Your task to perform on an android device: change the clock display to digital Image 0: 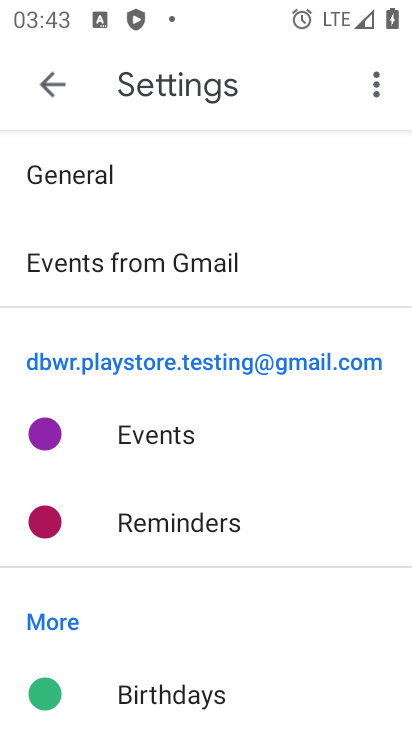
Step 0: press home button
Your task to perform on an android device: change the clock display to digital Image 1: 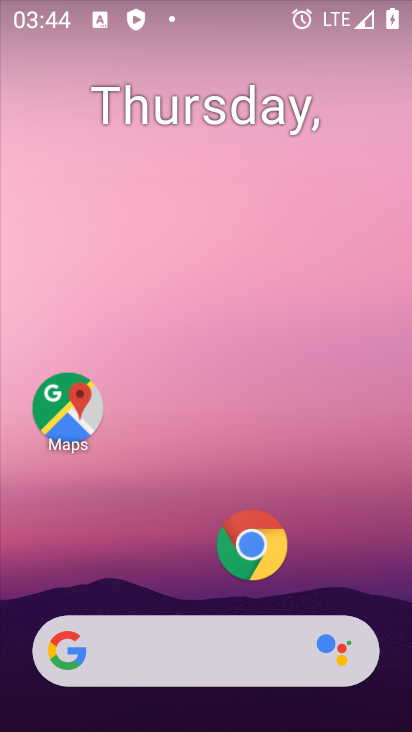
Step 1: drag from (299, 538) to (348, 6)
Your task to perform on an android device: change the clock display to digital Image 2: 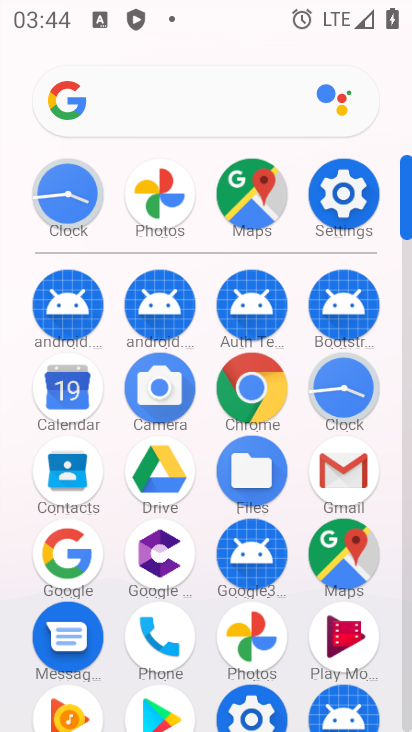
Step 2: click (336, 392)
Your task to perform on an android device: change the clock display to digital Image 3: 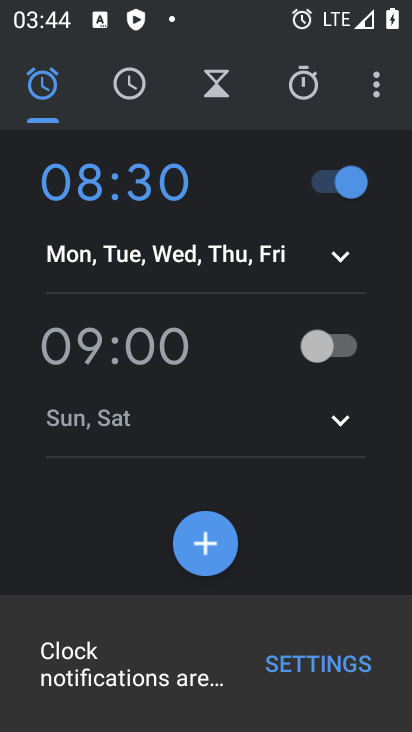
Step 3: click (377, 77)
Your task to perform on an android device: change the clock display to digital Image 4: 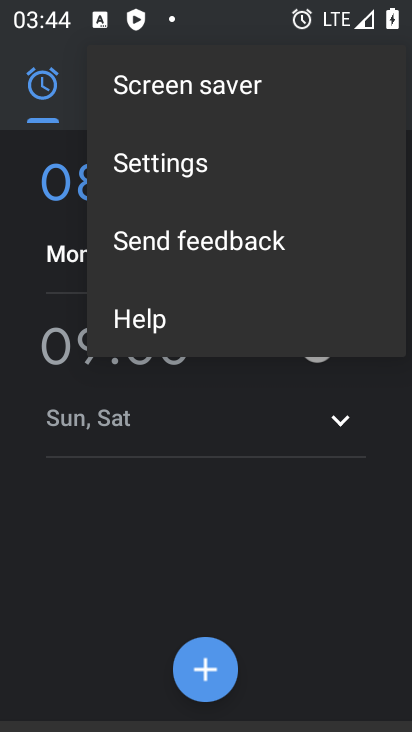
Step 4: click (223, 173)
Your task to perform on an android device: change the clock display to digital Image 5: 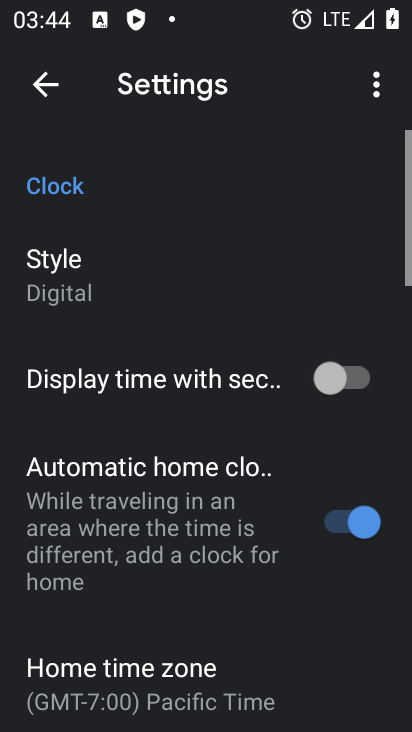
Step 5: click (192, 294)
Your task to perform on an android device: change the clock display to digital Image 6: 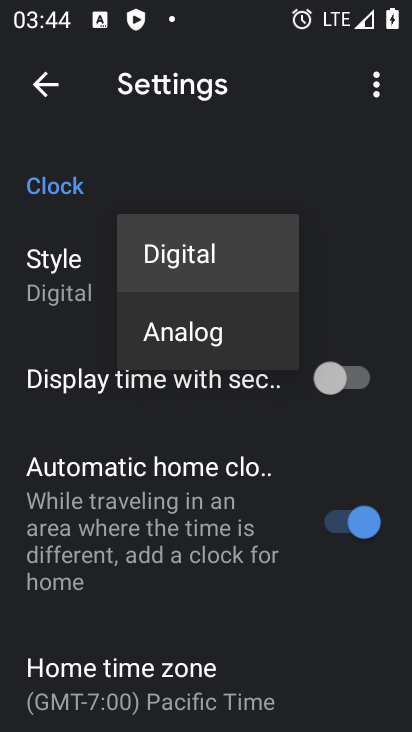
Step 6: click (180, 242)
Your task to perform on an android device: change the clock display to digital Image 7: 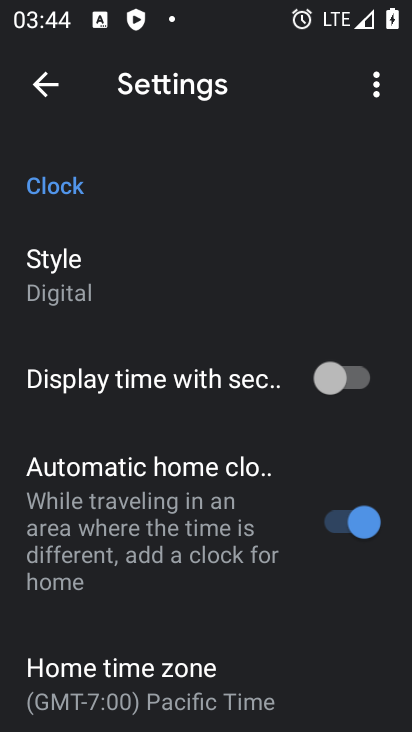
Step 7: task complete